Your task to perform on an android device: Set the phone to "Do not disturb". Image 0: 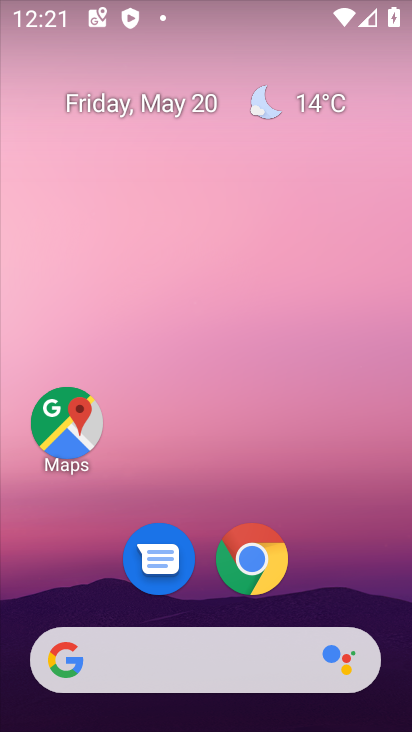
Step 0: drag from (371, 583) to (247, 37)
Your task to perform on an android device: Set the phone to "Do not disturb". Image 1: 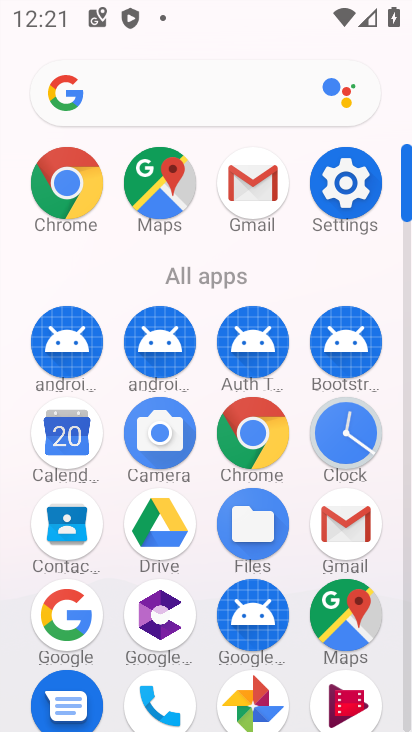
Step 1: click (343, 235)
Your task to perform on an android device: Set the phone to "Do not disturb". Image 2: 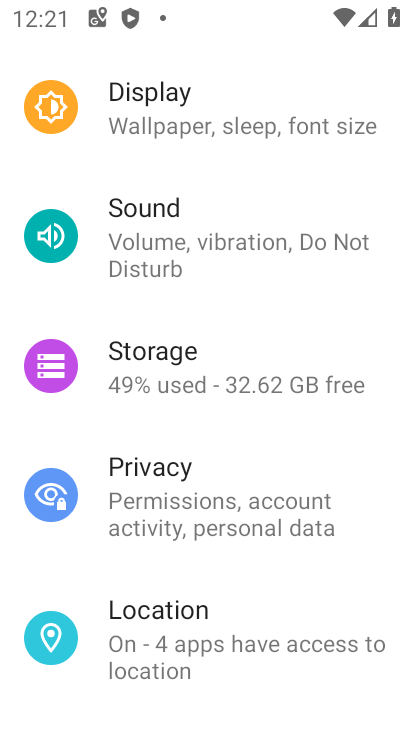
Step 2: drag from (112, 520) to (114, 470)
Your task to perform on an android device: Set the phone to "Do not disturb". Image 3: 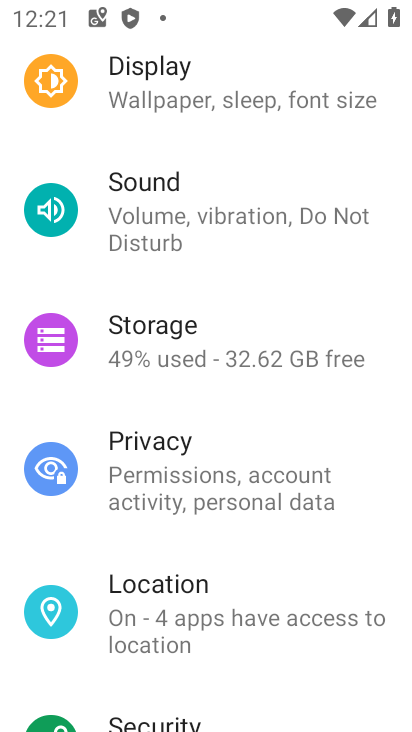
Step 3: click (166, 250)
Your task to perform on an android device: Set the phone to "Do not disturb". Image 4: 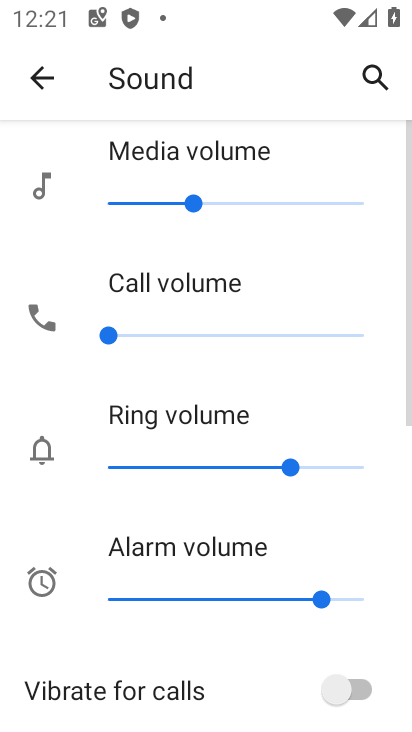
Step 4: drag from (159, 583) to (188, 343)
Your task to perform on an android device: Set the phone to "Do not disturb". Image 5: 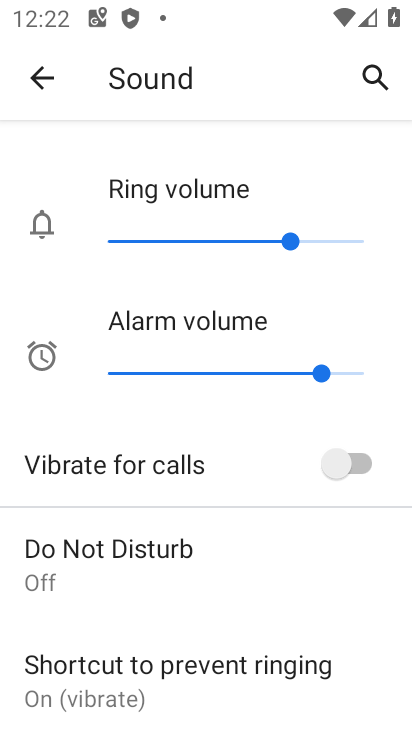
Step 5: click (127, 606)
Your task to perform on an android device: Set the phone to "Do not disturb". Image 6: 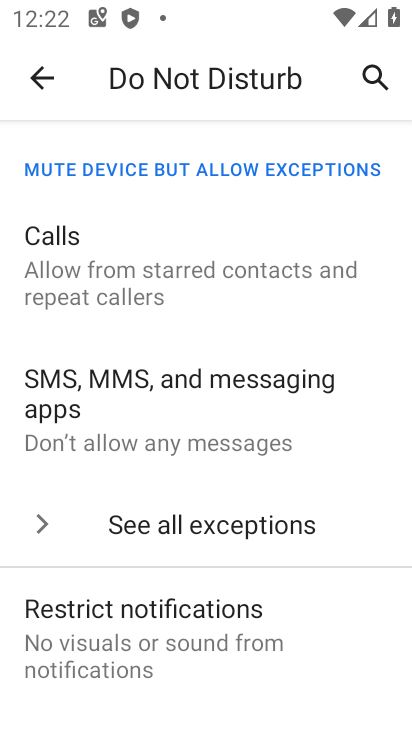
Step 6: drag from (143, 362) to (171, 172)
Your task to perform on an android device: Set the phone to "Do not disturb". Image 7: 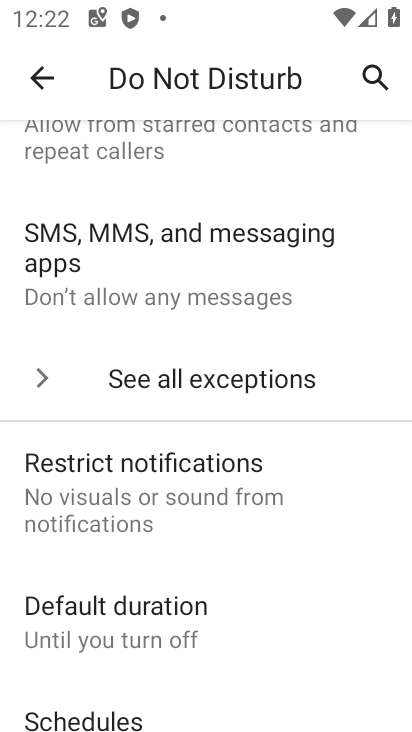
Step 7: drag from (121, 503) to (151, 197)
Your task to perform on an android device: Set the phone to "Do not disturb". Image 8: 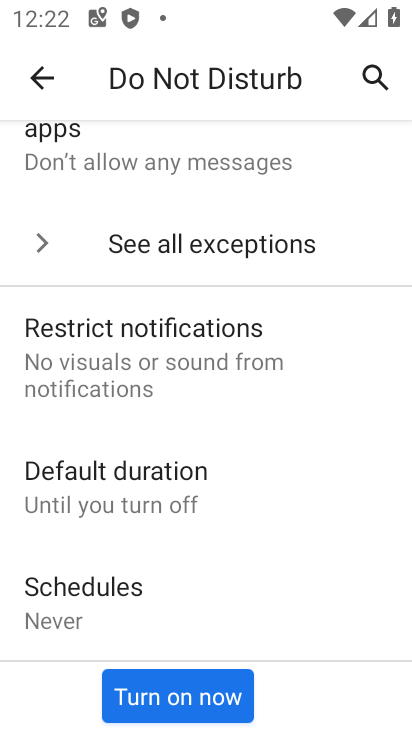
Step 8: click (183, 705)
Your task to perform on an android device: Set the phone to "Do not disturb". Image 9: 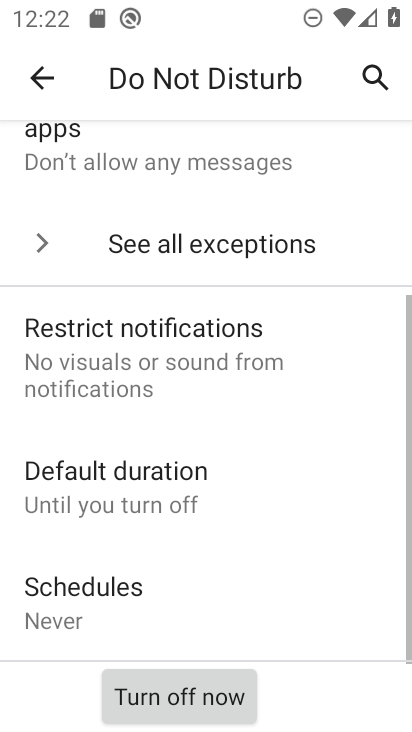
Step 9: task complete